Your task to perform on an android device: snooze an email in the gmail app Image 0: 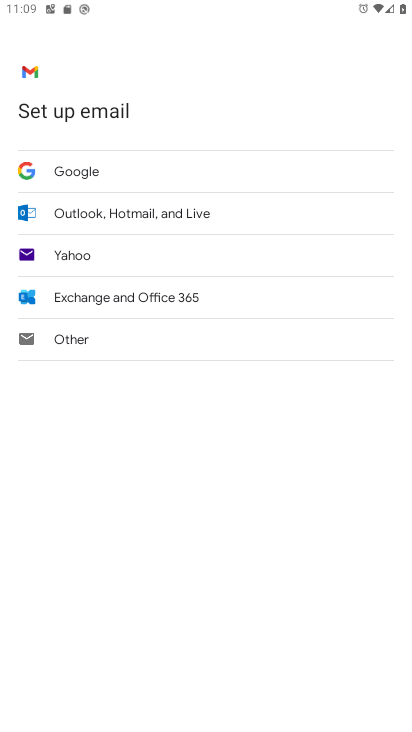
Step 0: press home button
Your task to perform on an android device: snooze an email in the gmail app Image 1: 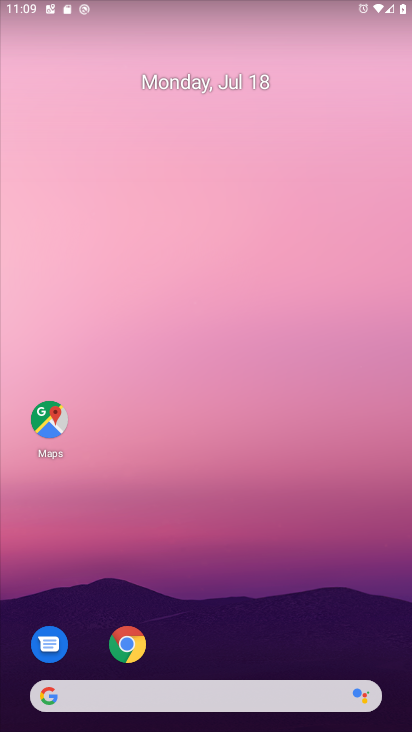
Step 1: drag from (253, 650) to (134, 42)
Your task to perform on an android device: snooze an email in the gmail app Image 2: 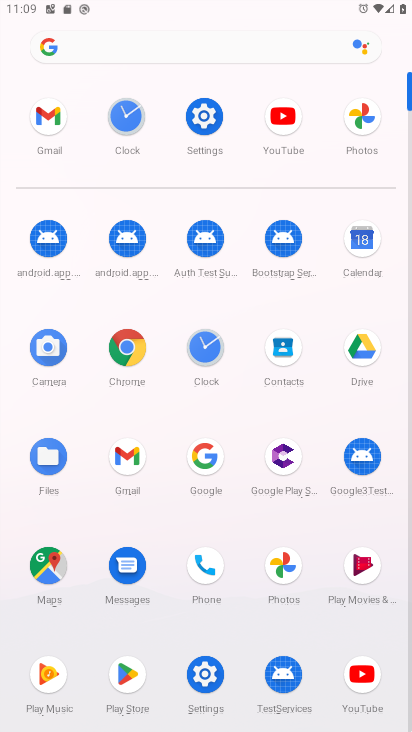
Step 2: click (133, 470)
Your task to perform on an android device: snooze an email in the gmail app Image 3: 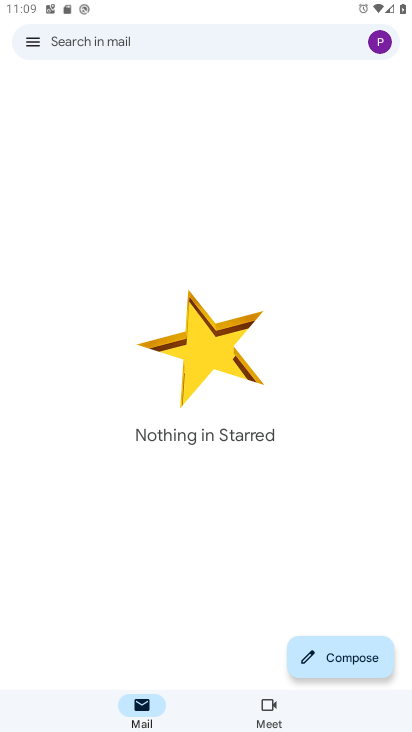
Step 3: task complete